Your task to perform on an android device: See recent photos Image 0: 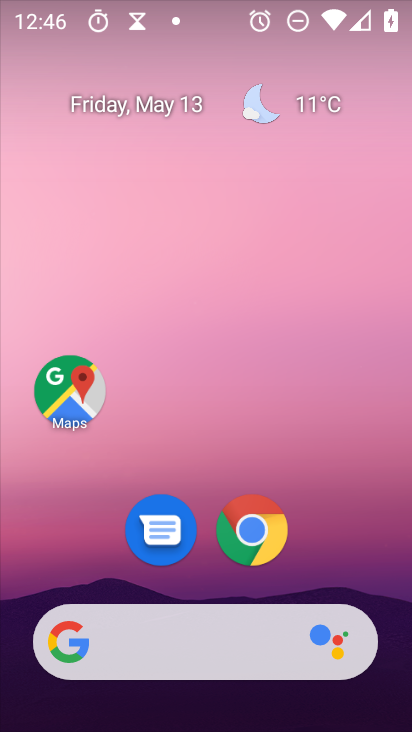
Step 0: press home button
Your task to perform on an android device: See recent photos Image 1: 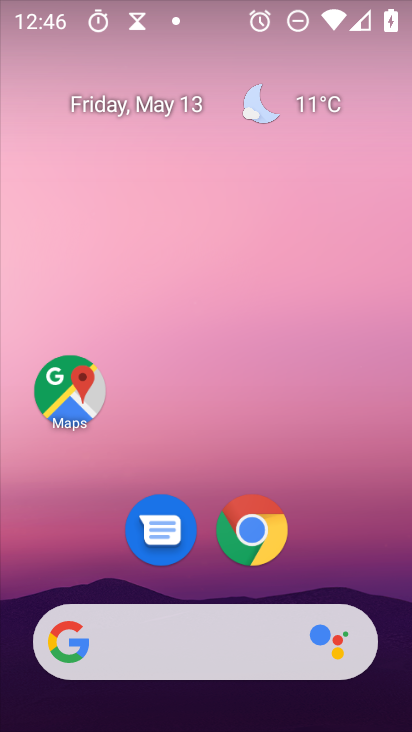
Step 1: drag from (173, 670) to (269, 183)
Your task to perform on an android device: See recent photos Image 2: 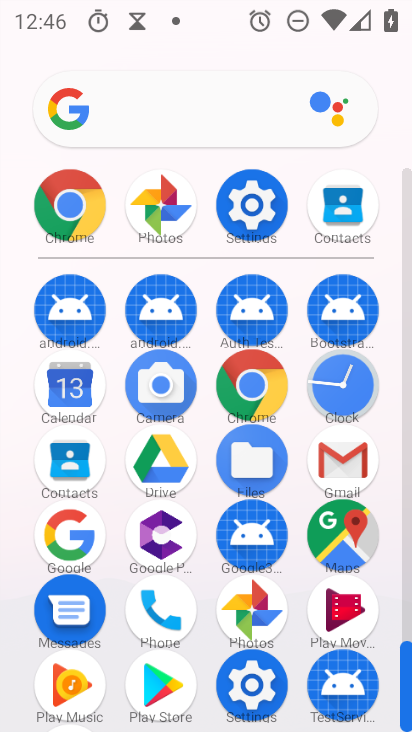
Step 2: click (148, 186)
Your task to perform on an android device: See recent photos Image 3: 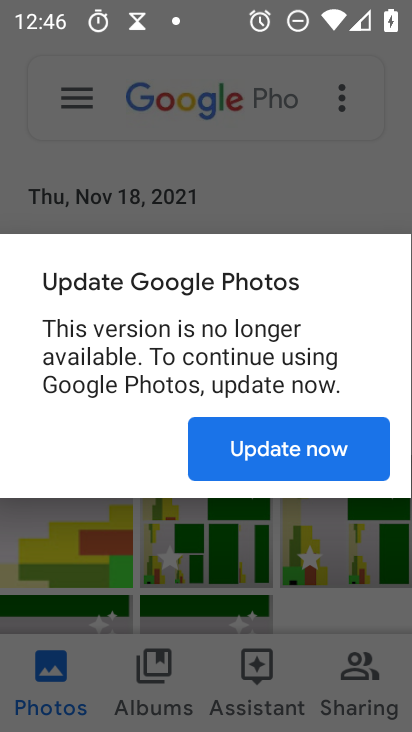
Step 3: click (288, 453)
Your task to perform on an android device: See recent photos Image 4: 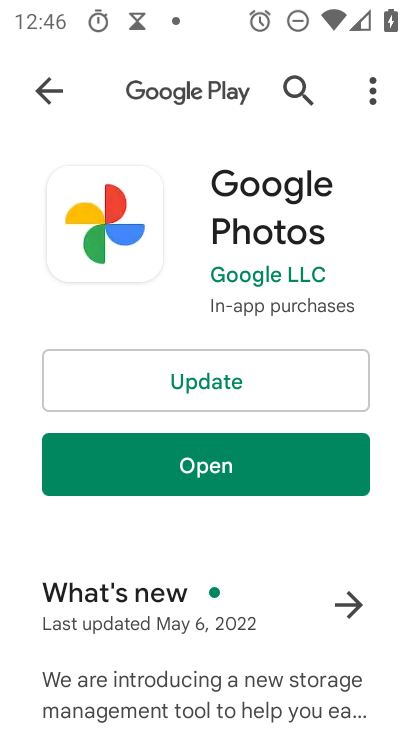
Step 4: click (214, 459)
Your task to perform on an android device: See recent photos Image 5: 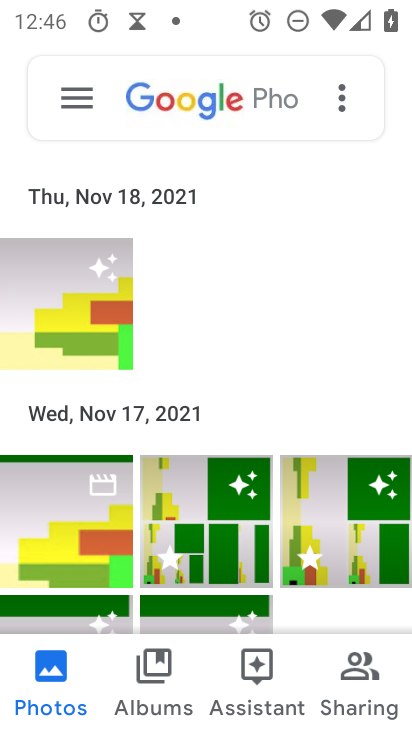
Step 5: click (165, 708)
Your task to perform on an android device: See recent photos Image 6: 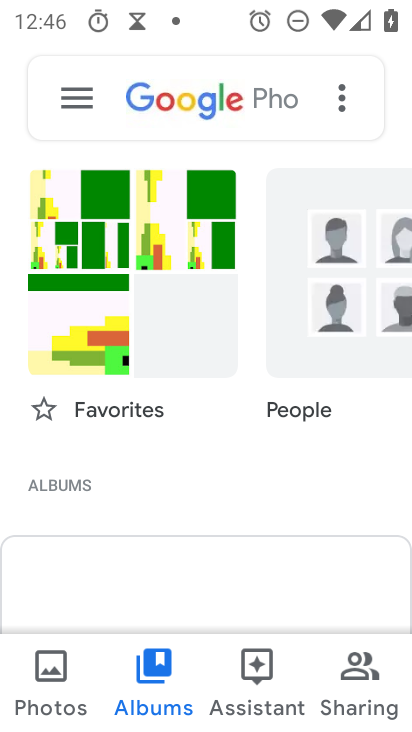
Step 6: task complete